Your task to perform on an android device: visit the assistant section in the google photos Image 0: 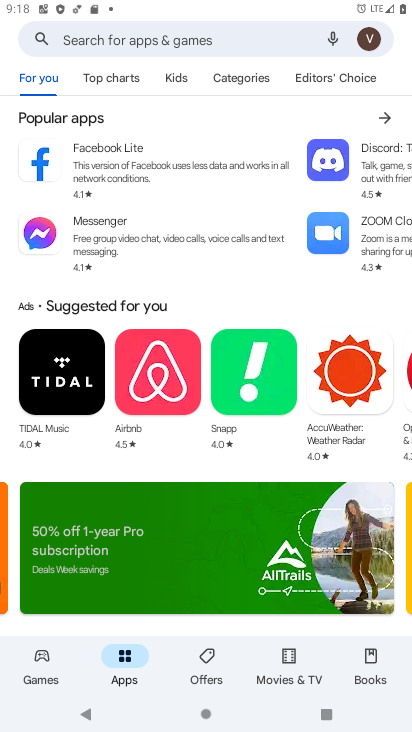
Step 0: press home button
Your task to perform on an android device: visit the assistant section in the google photos Image 1: 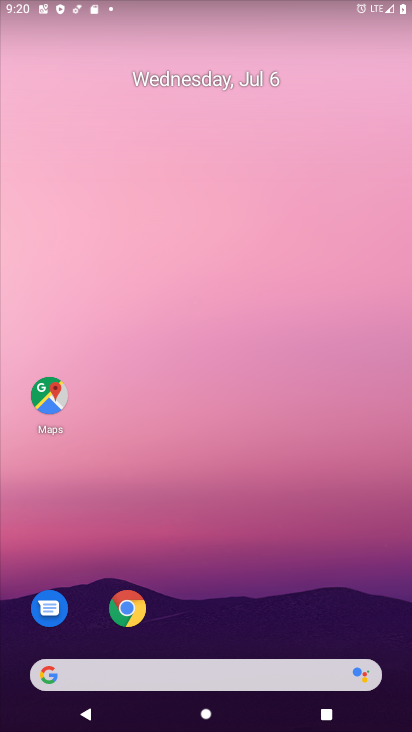
Step 1: drag from (390, 587) to (204, 49)
Your task to perform on an android device: visit the assistant section in the google photos Image 2: 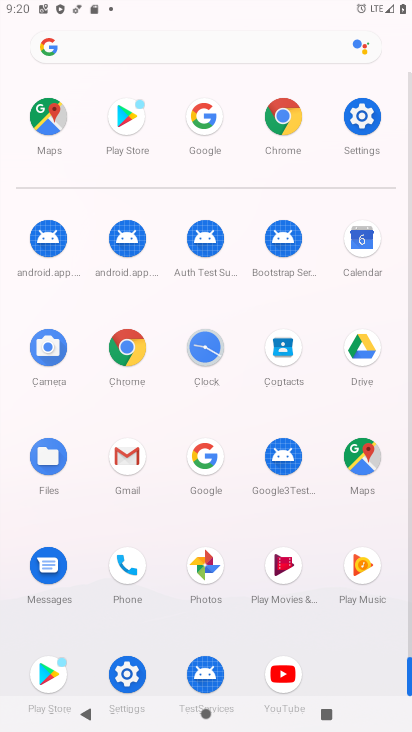
Step 2: click (200, 563)
Your task to perform on an android device: visit the assistant section in the google photos Image 3: 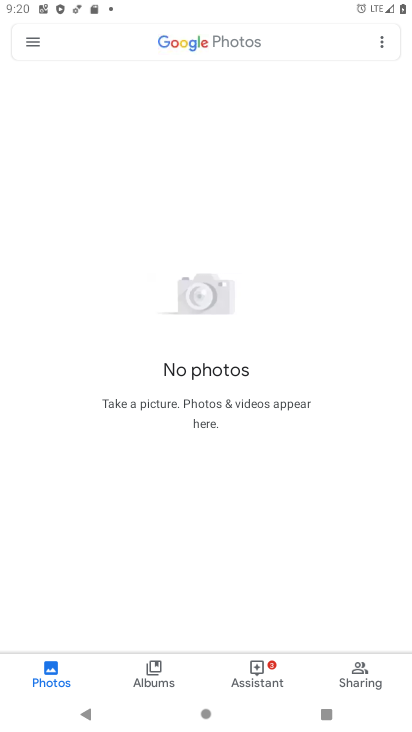
Step 3: click (258, 673)
Your task to perform on an android device: visit the assistant section in the google photos Image 4: 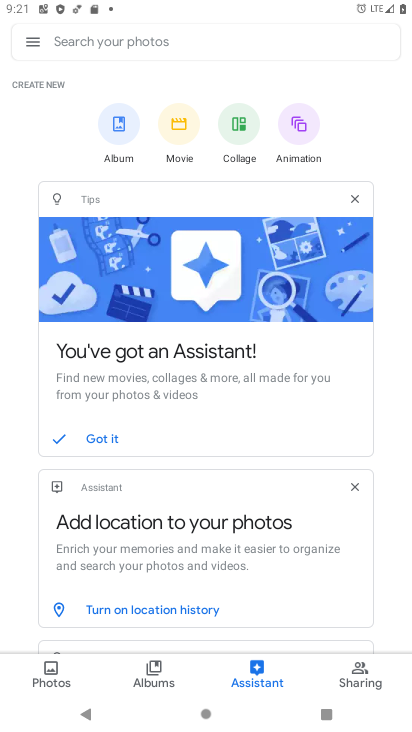
Step 4: task complete